Your task to perform on an android device: turn notification dots off Image 0: 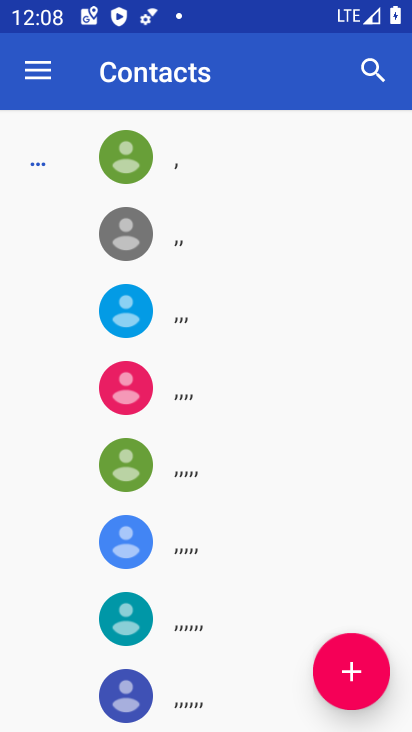
Step 0: press home button
Your task to perform on an android device: turn notification dots off Image 1: 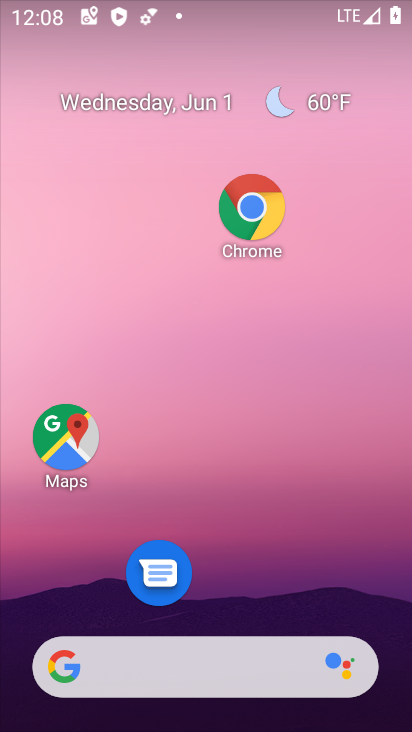
Step 1: drag from (211, 615) to (159, 217)
Your task to perform on an android device: turn notification dots off Image 2: 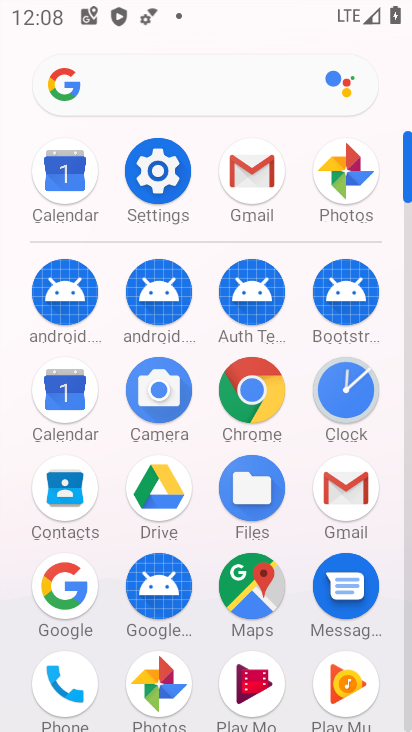
Step 2: click (153, 183)
Your task to perform on an android device: turn notification dots off Image 3: 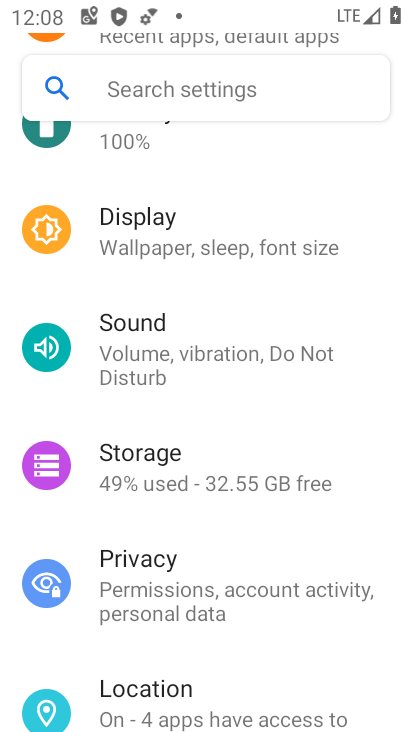
Step 3: drag from (210, 266) to (209, 486)
Your task to perform on an android device: turn notification dots off Image 4: 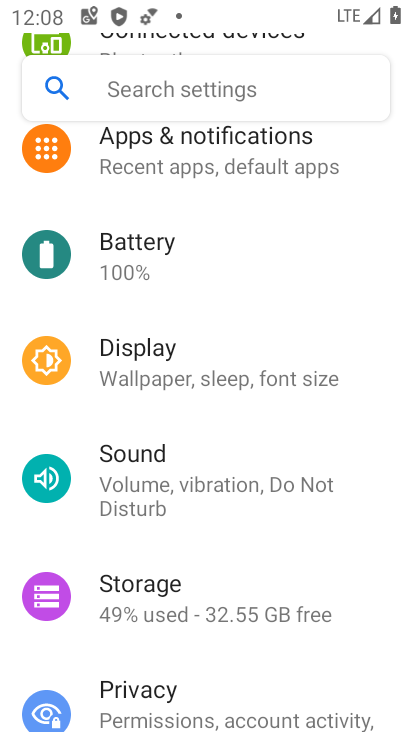
Step 4: click (194, 166)
Your task to perform on an android device: turn notification dots off Image 5: 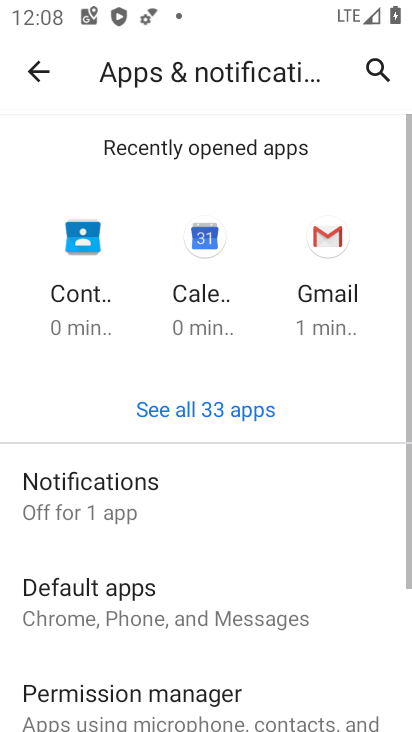
Step 5: click (197, 466)
Your task to perform on an android device: turn notification dots off Image 6: 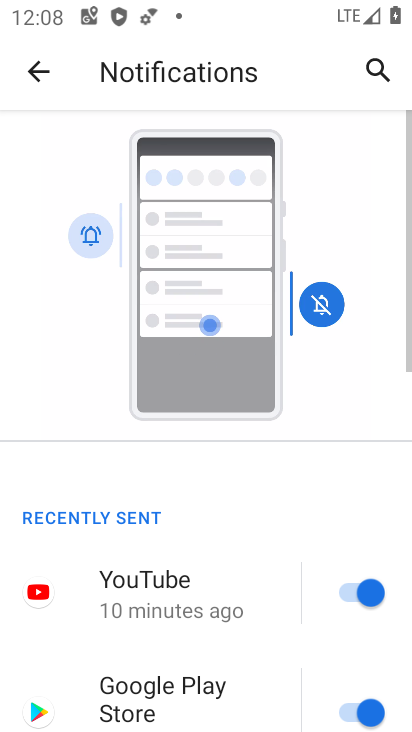
Step 6: drag from (196, 651) to (209, 249)
Your task to perform on an android device: turn notification dots off Image 7: 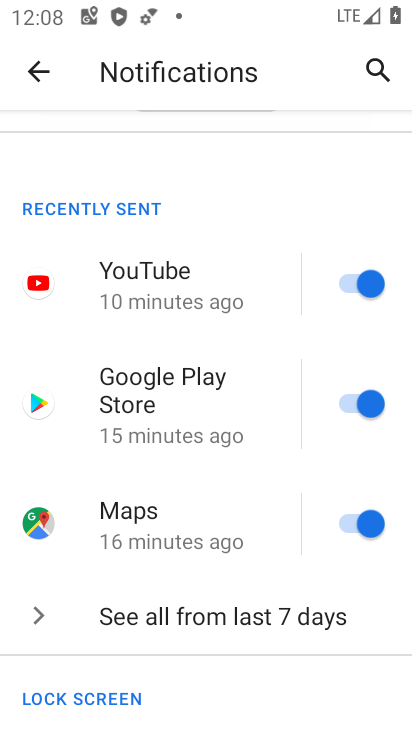
Step 7: drag from (199, 523) to (202, 225)
Your task to perform on an android device: turn notification dots off Image 8: 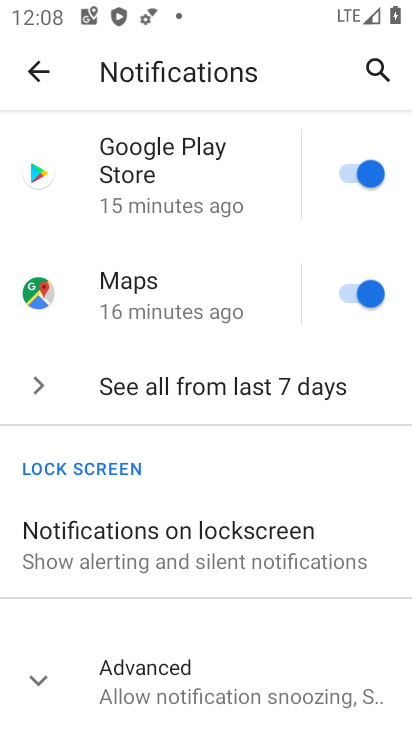
Step 8: click (214, 671)
Your task to perform on an android device: turn notification dots off Image 9: 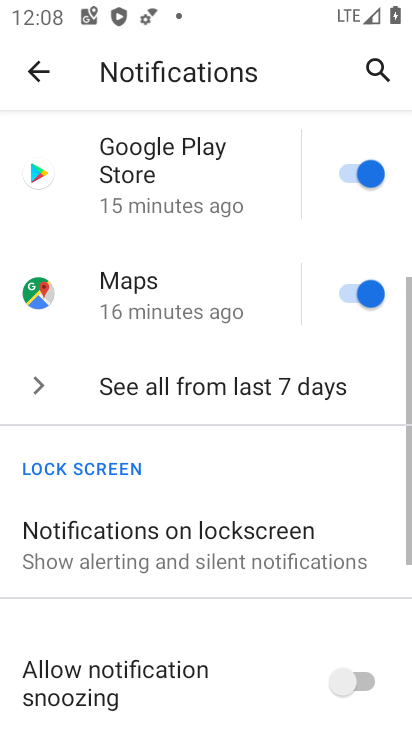
Step 9: drag from (225, 663) to (243, 382)
Your task to perform on an android device: turn notification dots off Image 10: 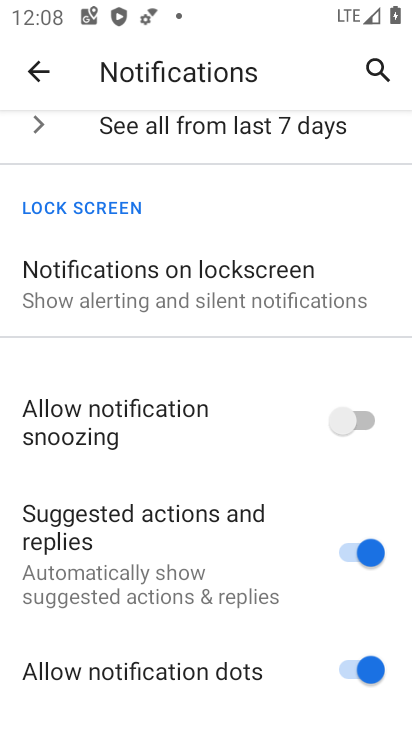
Step 10: click (354, 665)
Your task to perform on an android device: turn notification dots off Image 11: 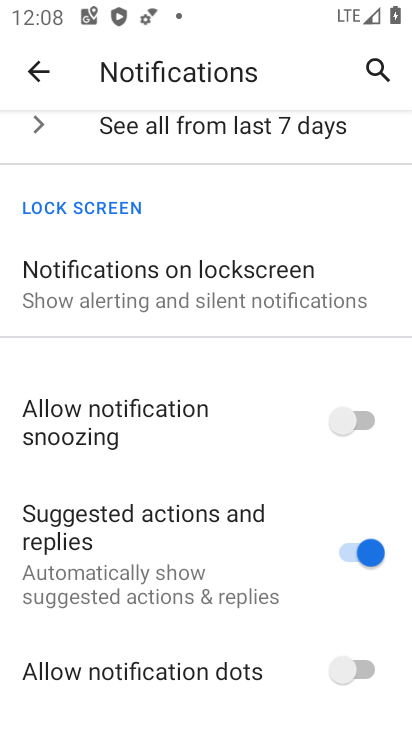
Step 11: task complete